Your task to perform on an android device: Go to Amazon Image 0: 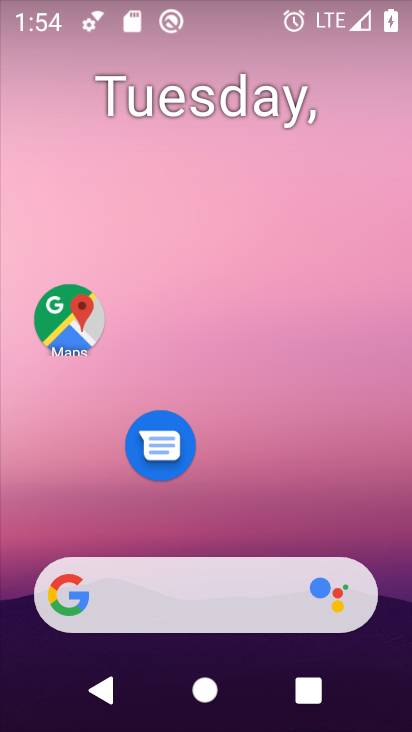
Step 0: drag from (265, 511) to (214, 44)
Your task to perform on an android device: Go to Amazon Image 1: 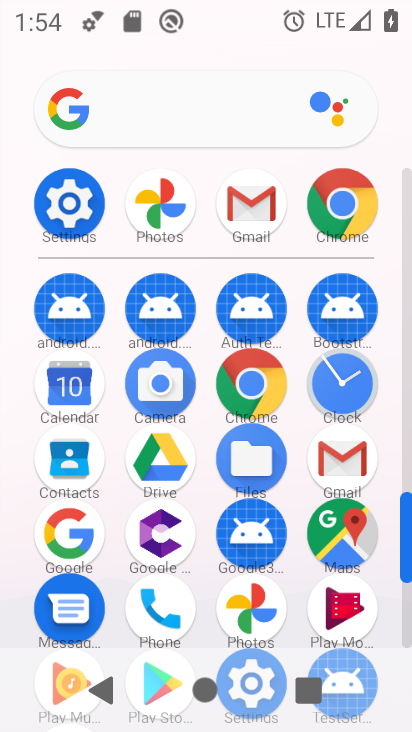
Step 1: click (248, 386)
Your task to perform on an android device: Go to Amazon Image 2: 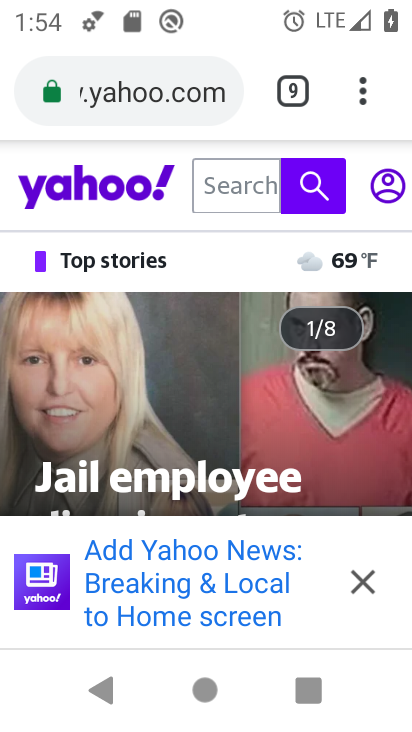
Step 2: click (360, 92)
Your task to perform on an android device: Go to Amazon Image 3: 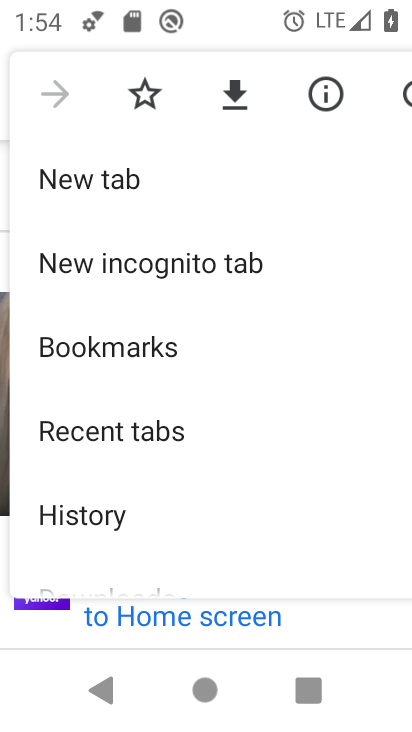
Step 3: click (112, 185)
Your task to perform on an android device: Go to Amazon Image 4: 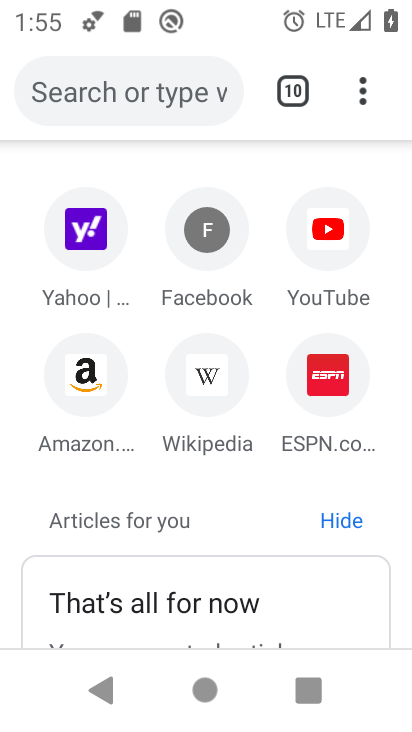
Step 4: click (89, 379)
Your task to perform on an android device: Go to Amazon Image 5: 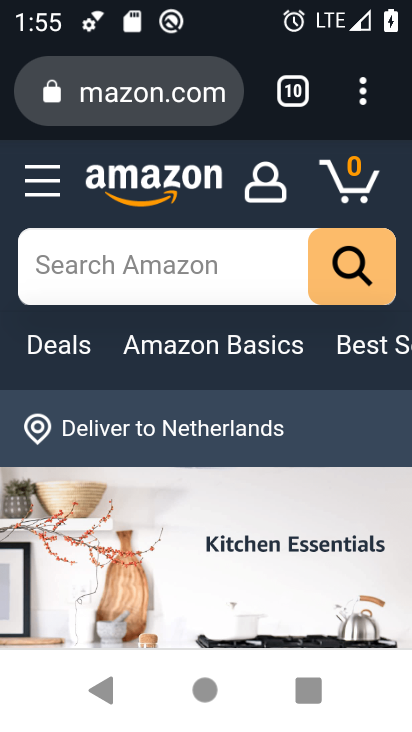
Step 5: task complete